Your task to perform on an android device: Open Android settings Image 0: 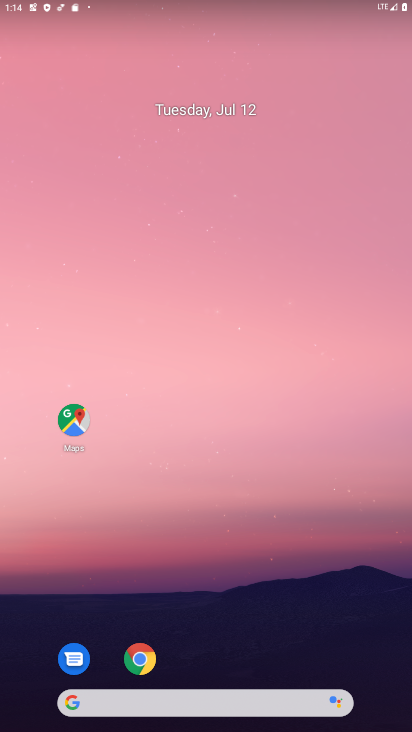
Step 0: drag from (237, 715) to (234, 248)
Your task to perform on an android device: Open Android settings Image 1: 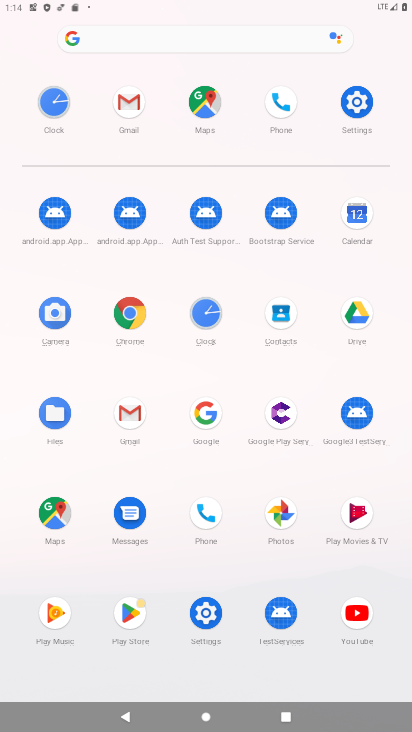
Step 1: click (359, 101)
Your task to perform on an android device: Open Android settings Image 2: 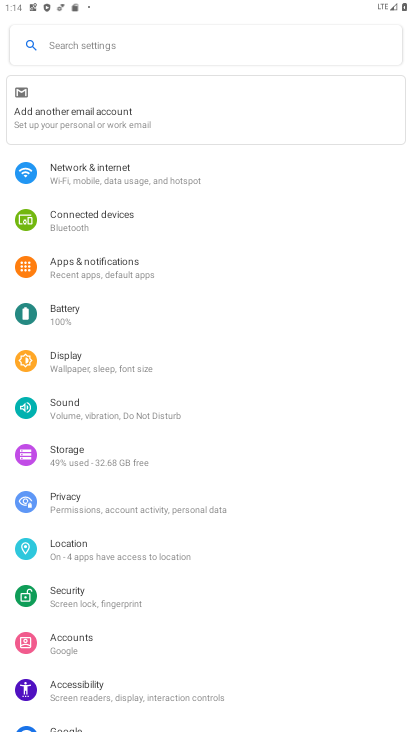
Step 2: task complete